Your task to perform on an android device: toggle improve location accuracy Image 0: 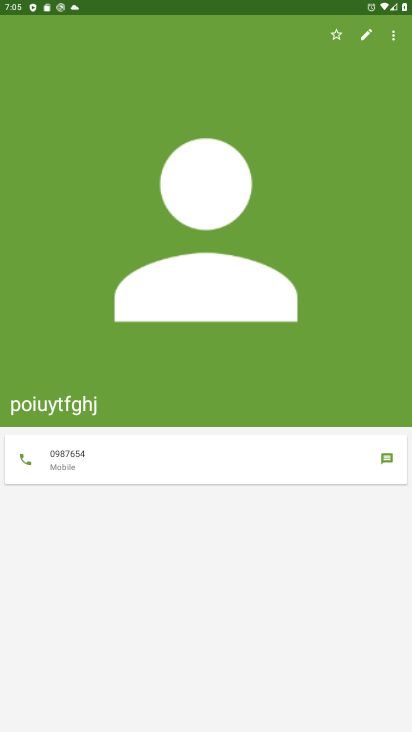
Step 0: press home button
Your task to perform on an android device: toggle improve location accuracy Image 1: 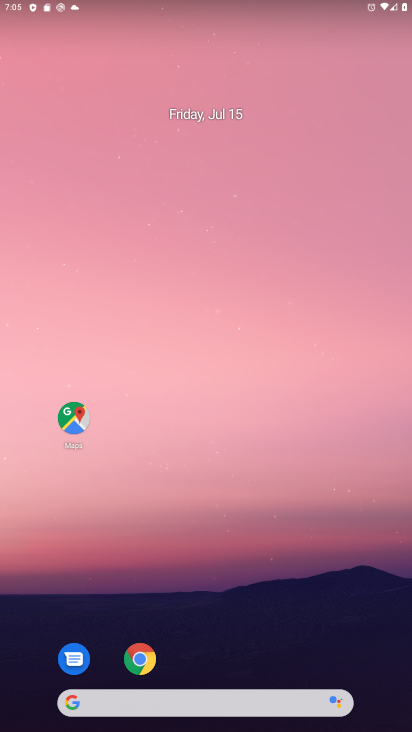
Step 1: drag from (330, 645) to (239, 97)
Your task to perform on an android device: toggle improve location accuracy Image 2: 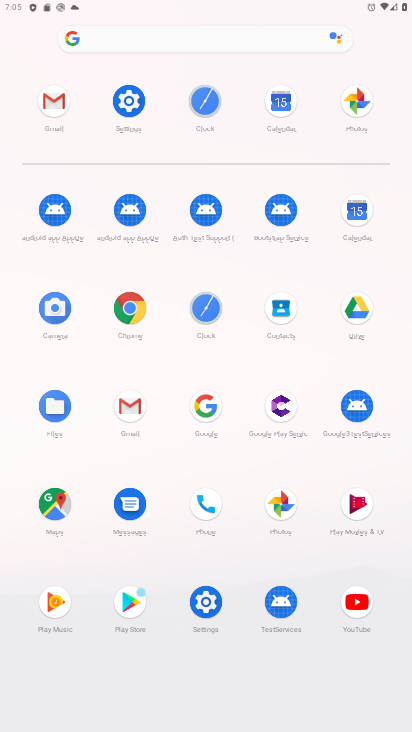
Step 2: click (208, 606)
Your task to perform on an android device: toggle improve location accuracy Image 3: 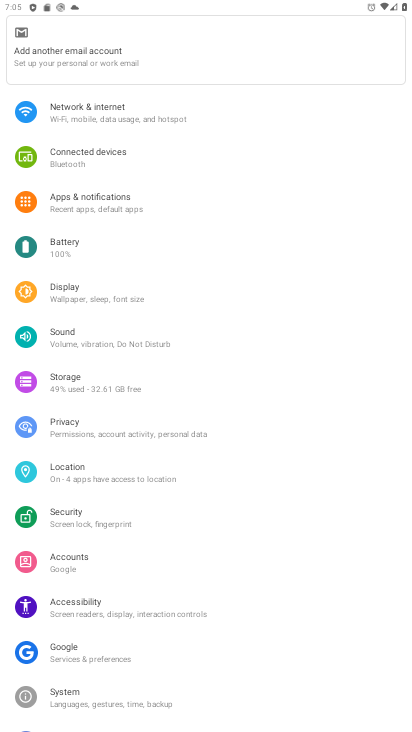
Step 3: click (88, 470)
Your task to perform on an android device: toggle improve location accuracy Image 4: 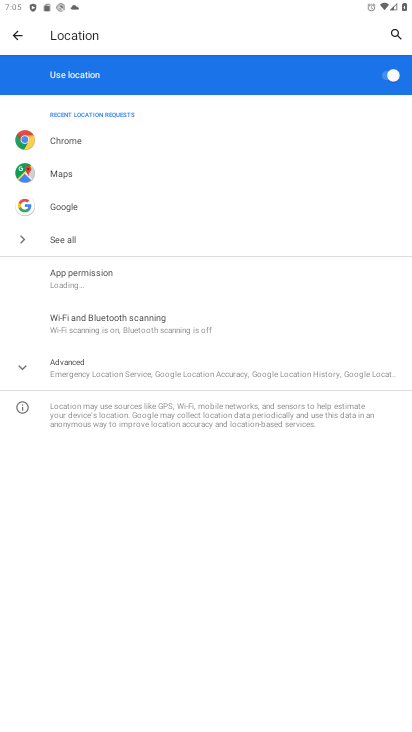
Step 4: click (18, 367)
Your task to perform on an android device: toggle improve location accuracy Image 5: 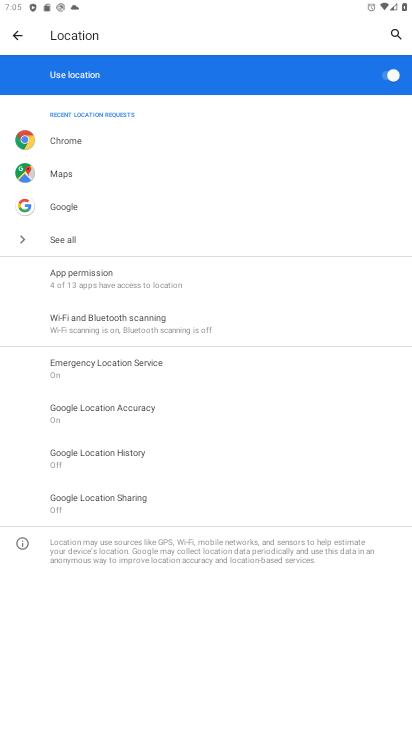
Step 5: click (89, 408)
Your task to perform on an android device: toggle improve location accuracy Image 6: 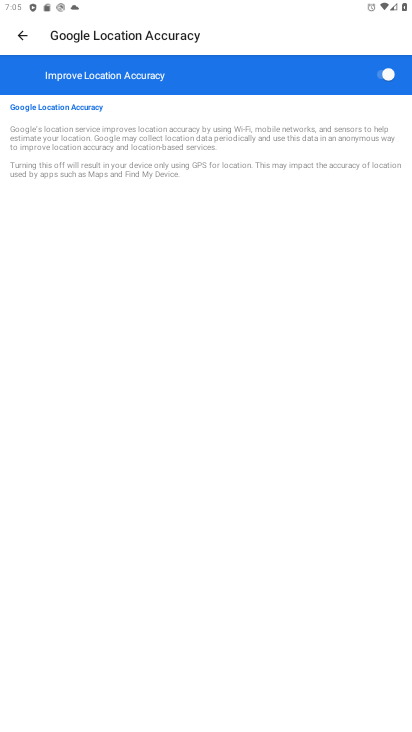
Step 6: click (379, 73)
Your task to perform on an android device: toggle improve location accuracy Image 7: 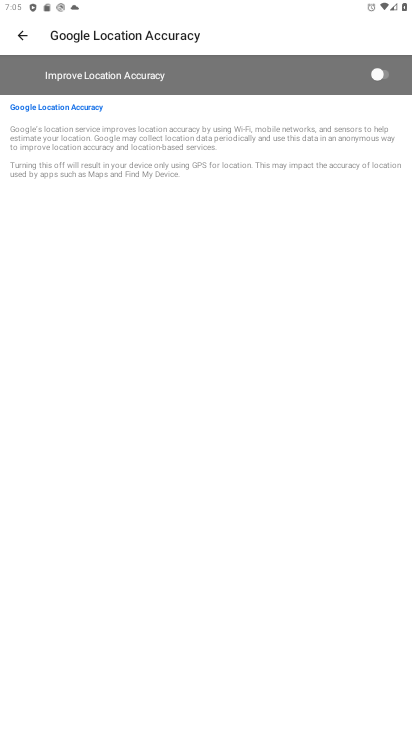
Step 7: task complete